Your task to perform on an android device: Turn off the flashlight Image 0: 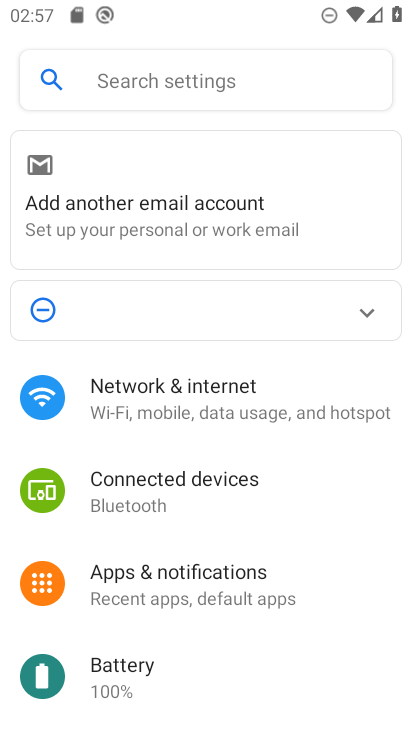
Step 0: press home button
Your task to perform on an android device: Turn off the flashlight Image 1: 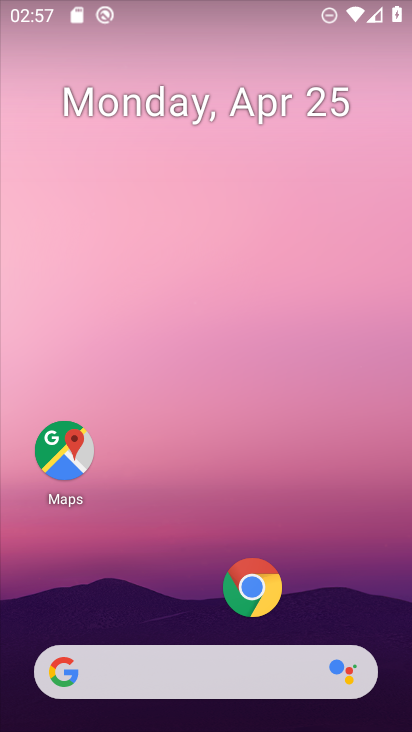
Step 1: drag from (201, 619) to (235, 28)
Your task to perform on an android device: Turn off the flashlight Image 2: 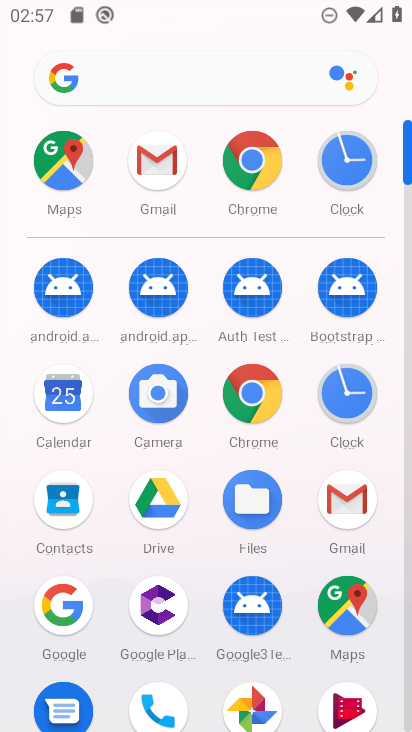
Step 2: drag from (194, 558) to (229, 154)
Your task to perform on an android device: Turn off the flashlight Image 3: 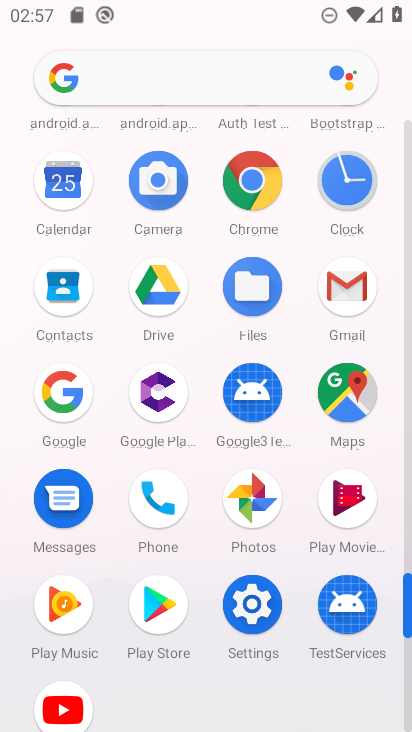
Step 3: click (249, 597)
Your task to perform on an android device: Turn off the flashlight Image 4: 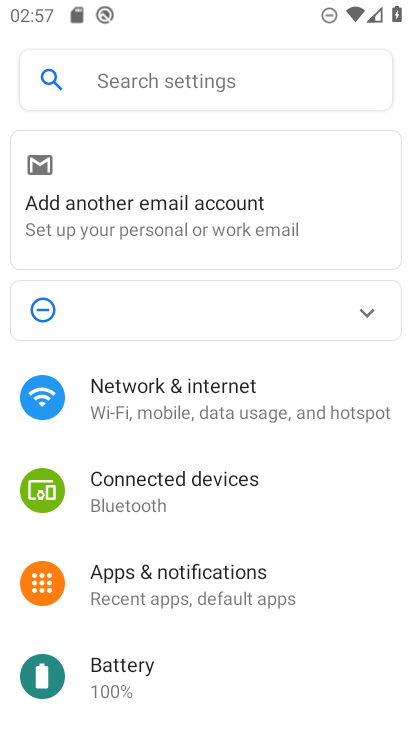
Step 4: click (166, 74)
Your task to perform on an android device: Turn off the flashlight Image 5: 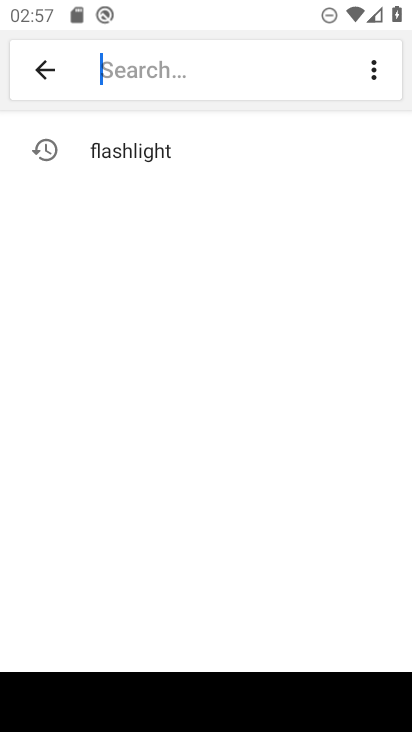
Step 5: click (171, 143)
Your task to perform on an android device: Turn off the flashlight Image 6: 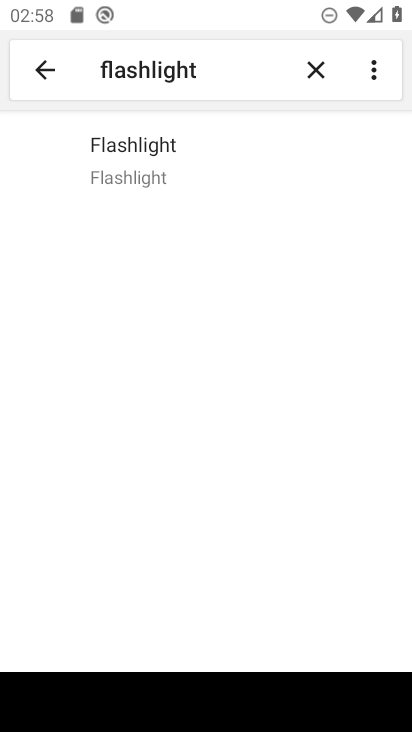
Step 6: click (168, 170)
Your task to perform on an android device: Turn off the flashlight Image 7: 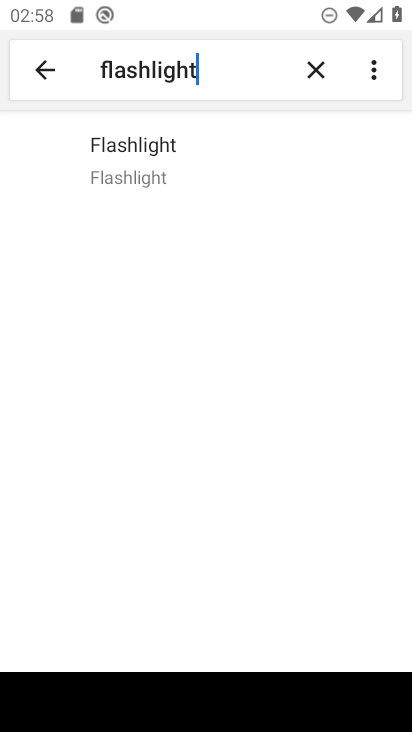
Step 7: task complete